Your task to perform on an android device: turn off javascript in the chrome app Image 0: 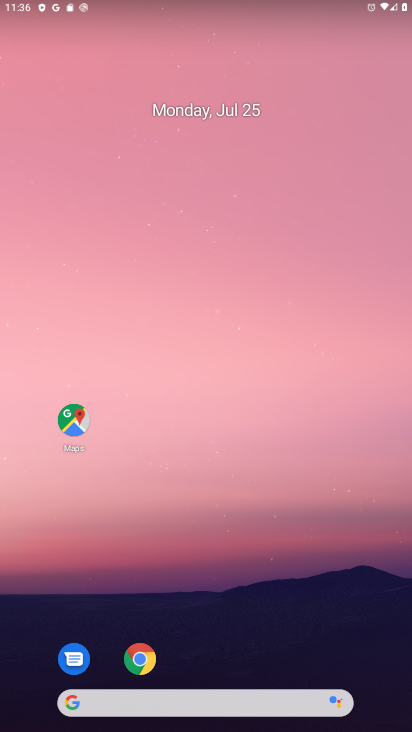
Step 0: click (137, 665)
Your task to perform on an android device: turn off javascript in the chrome app Image 1: 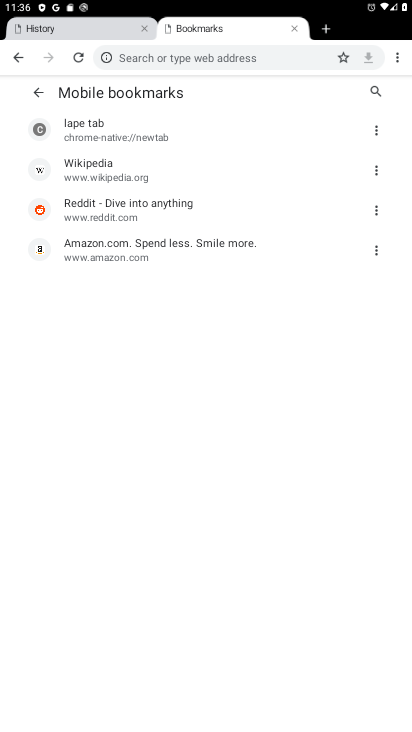
Step 1: click (397, 55)
Your task to perform on an android device: turn off javascript in the chrome app Image 2: 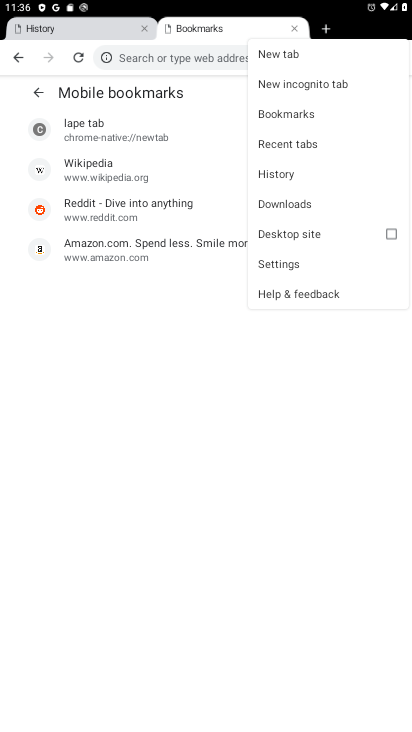
Step 2: click (284, 258)
Your task to perform on an android device: turn off javascript in the chrome app Image 3: 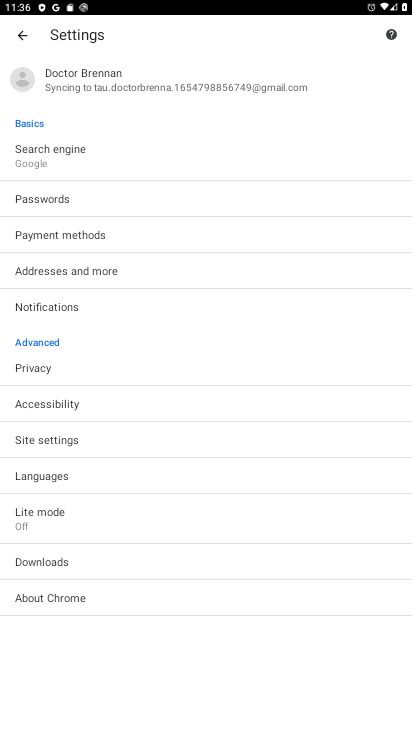
Step 3: click (45, 436)
Your task to perform on an android device: turn off javascript in the chrome app Image 4: 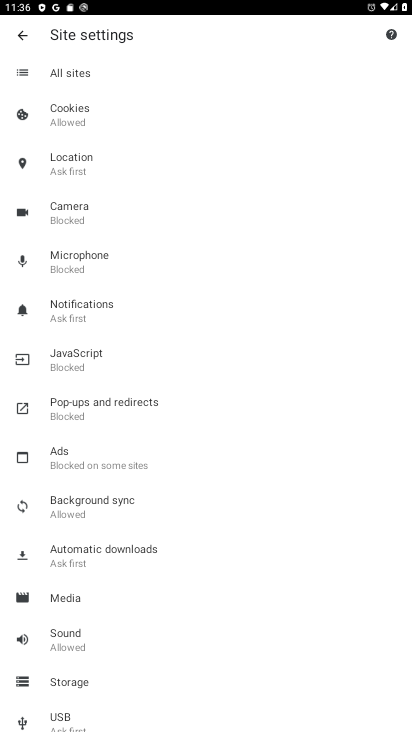
Step 4: click (74, 352)
Your task to perform on an android device: turn off javascript in the chrome app Image 5: 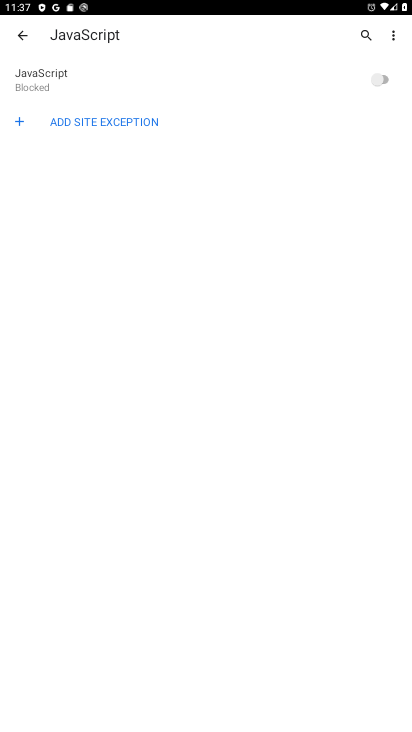
Step 5: task complete